Your task to perform on an android device: turn notification dots on Image 0: 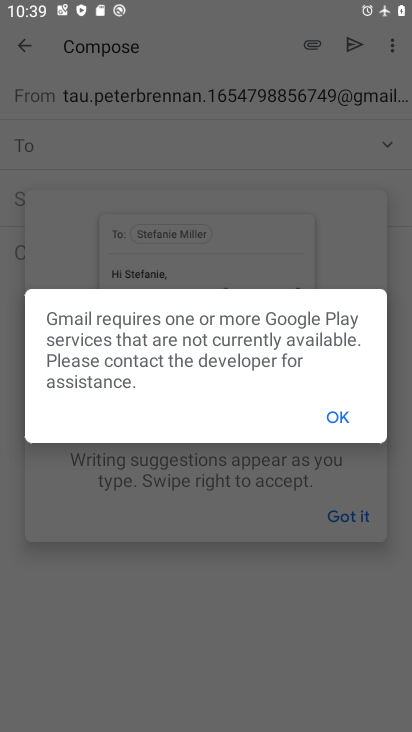
Step 0: press home button
Your task to perform on an android device: turn notification dots on Image 1: 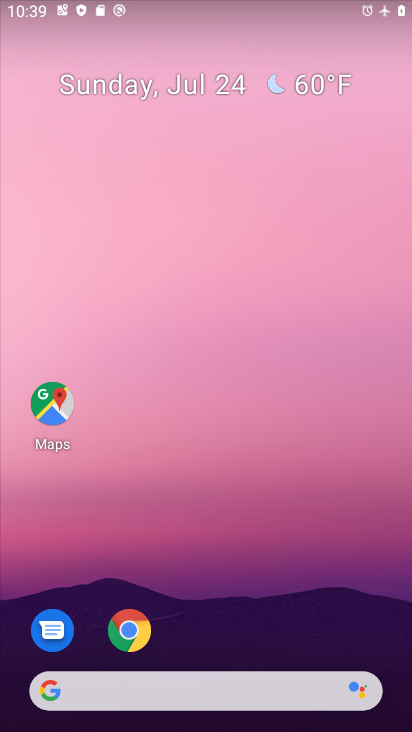
Step 1: drag from (217, 595) to (257, 84)
Your task to perform on an android device: turn notification dots on Image 2: 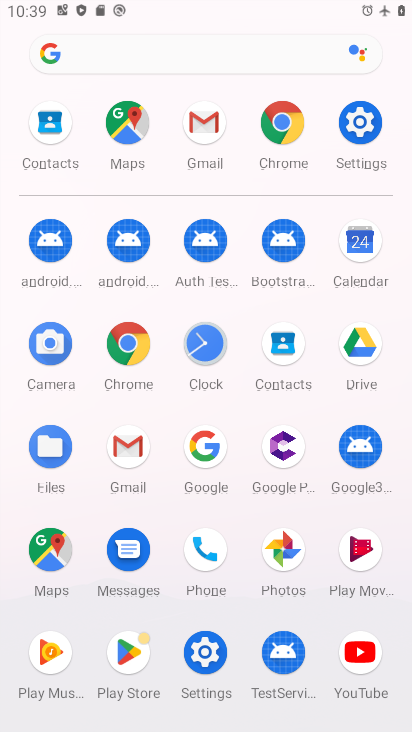
Step 2: click (365, 143)
Your task to perform on an android device: turn notification dots on Image 3: 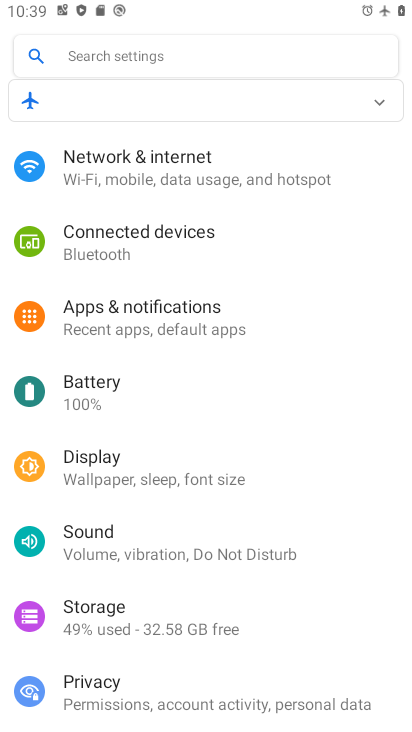
Step 3: click (166, 308)
Your task to perform on an android device: turn notification dots on Image 4: 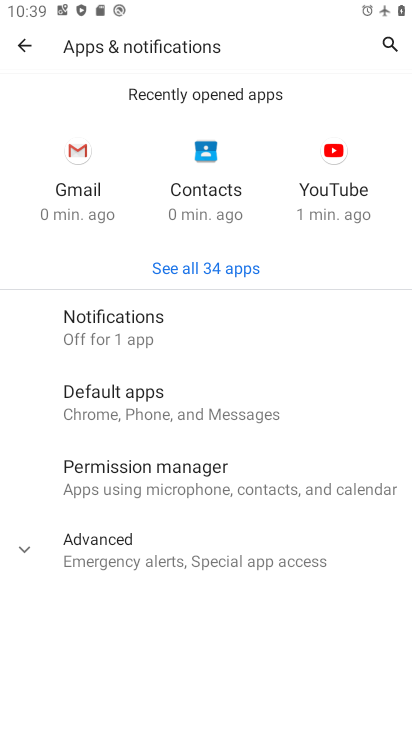
Step 4: click (127, 342)
Your task to perform on an android device: turn notification dots on Image 5: 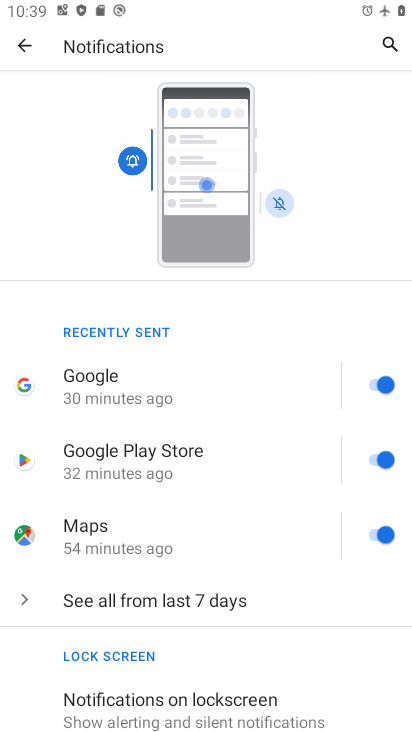
Step 5: drag from (182, 597) to (202, 279)
Your task to perform on an android device: turn notification dots on Image 6: 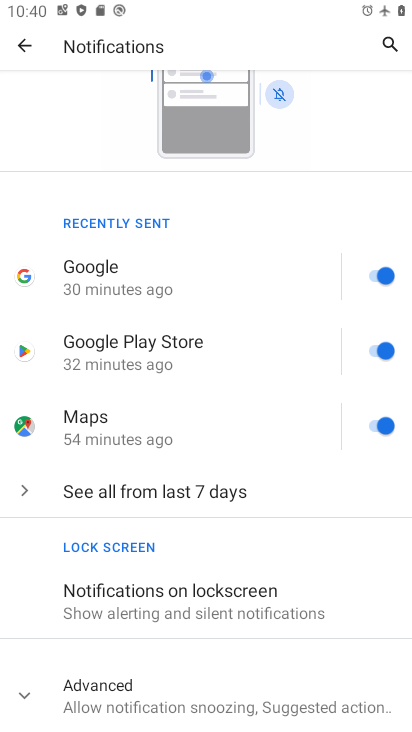
Step 6: click (187, 484)
Your task to perform on an android device: turn notification dots on Image 7: 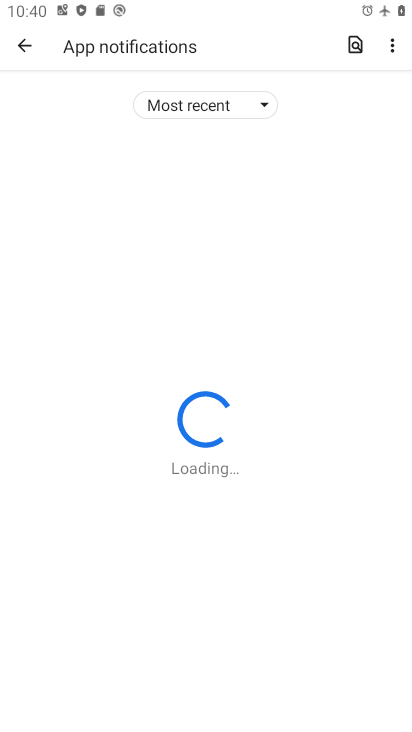
Step 7: click (122, 689)
Your task to perform on an android device: turn notification dots on Image 8: 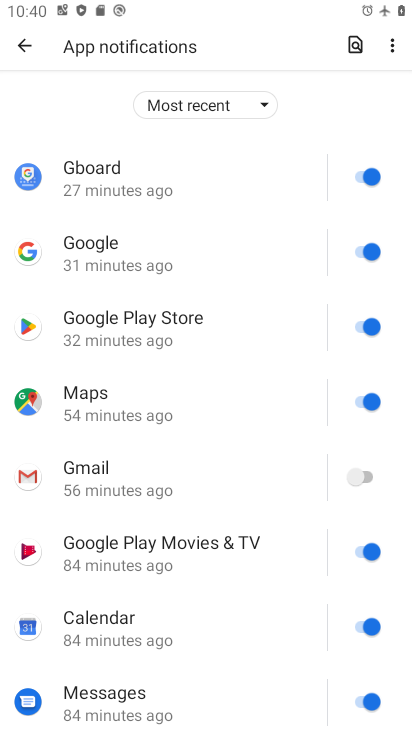
Step 8: click (18, 29)
Your task to perform on an android device: turn notification dots on Image 9: 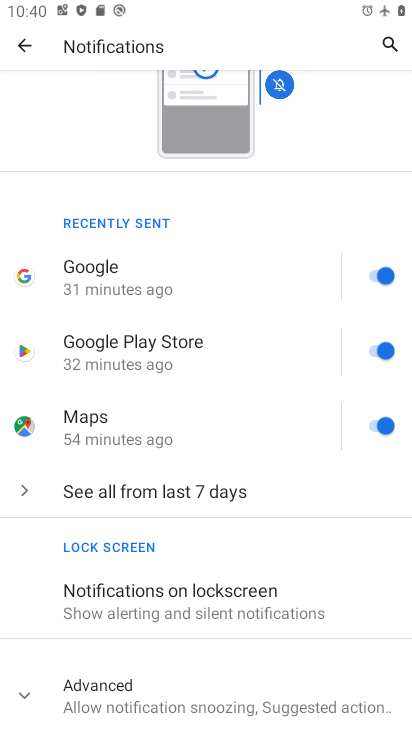
Step 9: click (166, 683)
Your task to perform on an android device: turn notification dots on Image 10: 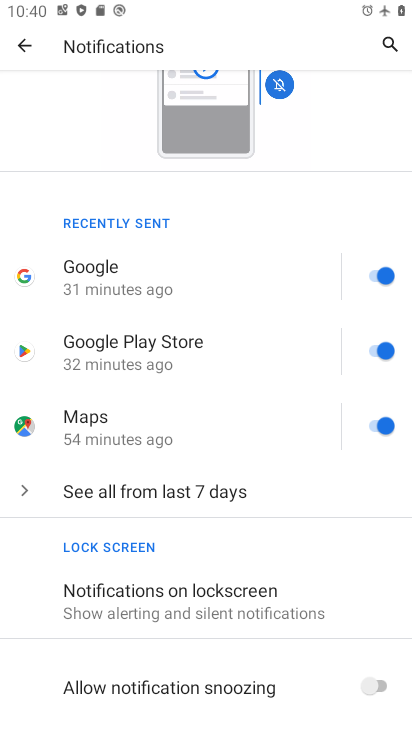
Step 10: task complete